Your task to perform on an android device: Show me popular videos on Youtube Image 0: 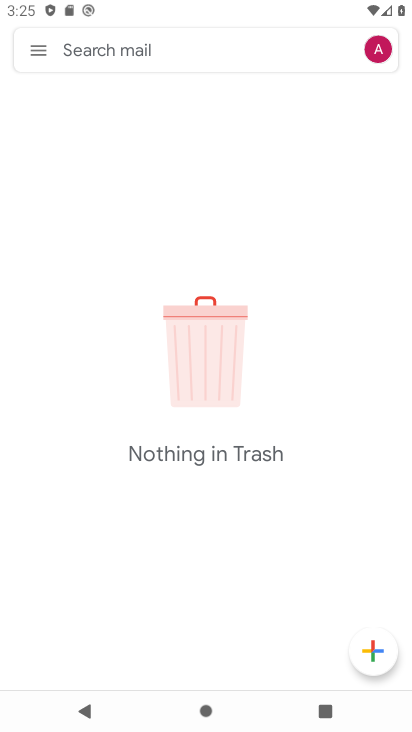
Step 0: press home button
Your task to perform on an android device: Show me popular videos on Youtube Image 1: 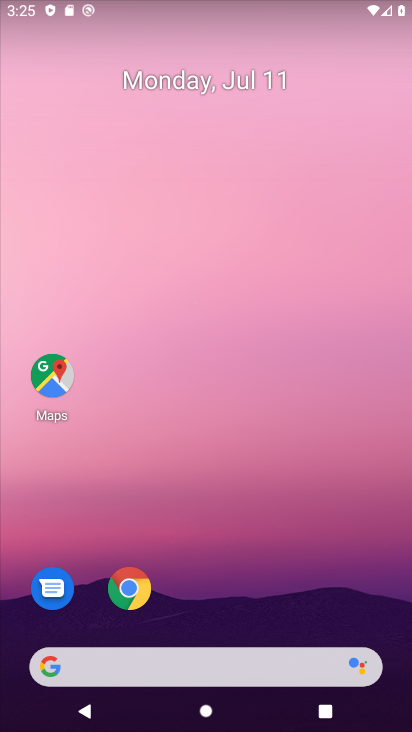
Step 1: click (407, 553)
Your task to perform on an android device: Show me popular videos on Youtube Image 2: 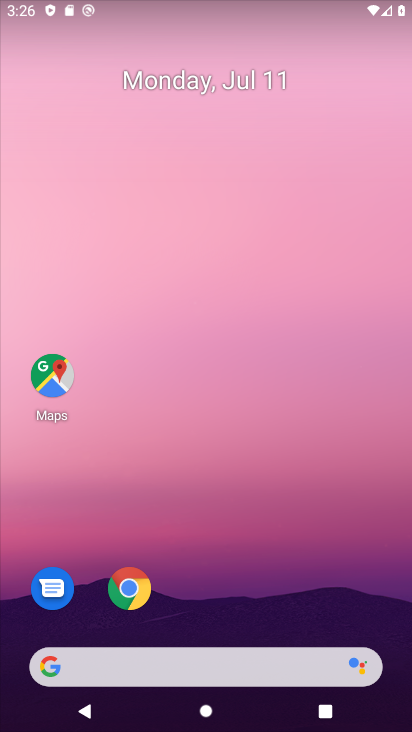
Step 2: drag from (345, 622) to (352, 230)
Your task to perform on an android device: Show me popular videos on Youtube Image 3: 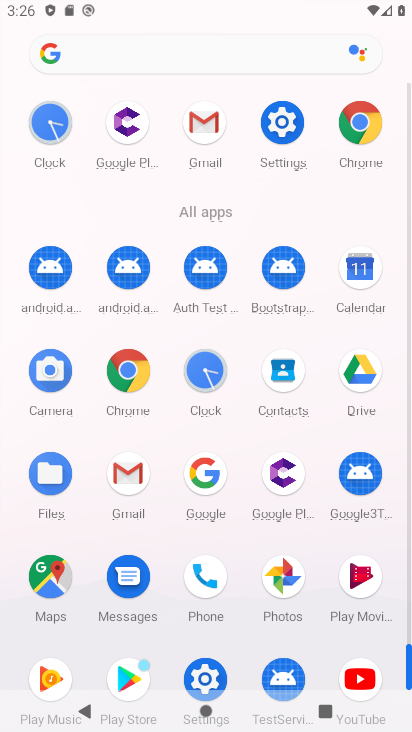
Step 3: click (362, 672)
Your task to perform on an android device: Show me popular videos on Youtube Image 4: 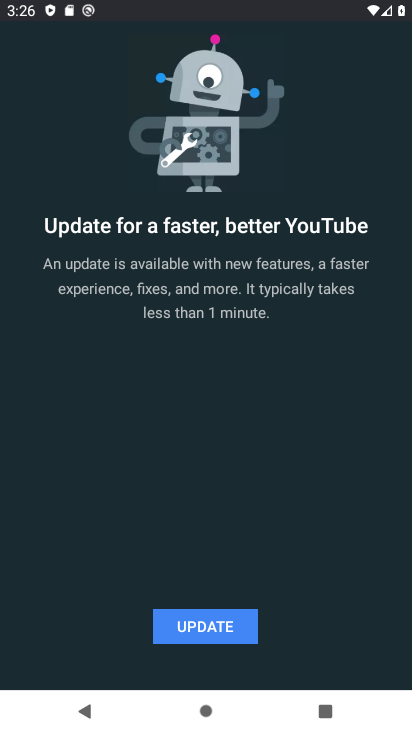
Step 4: click (221, 628)
Your task to perform on an android device: Show me popular videos on Youtube Image 5: 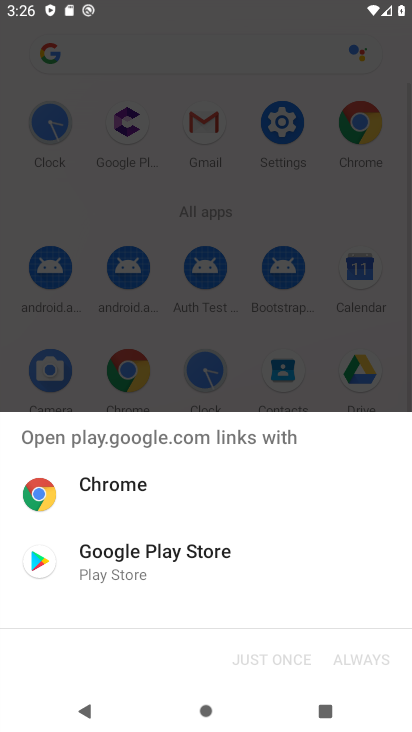
Step 5: click (174, 566)
Your task to perform on an android device: Show me popular videos on Youtube Image 6: 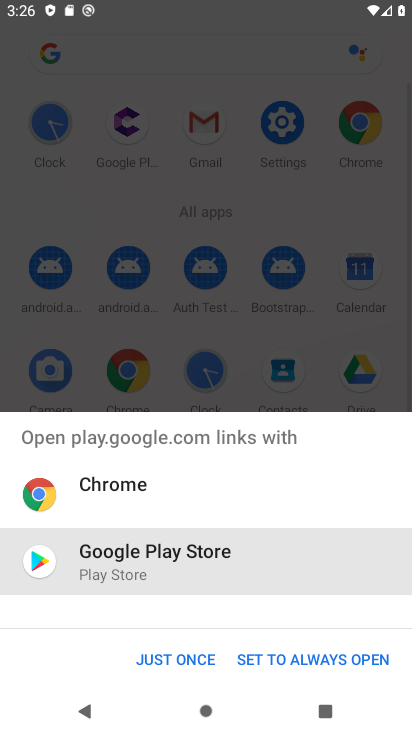
Step 6: click (175, 670)
Your task to perform on an android device: Show me popular videos on Youtube Image 7: 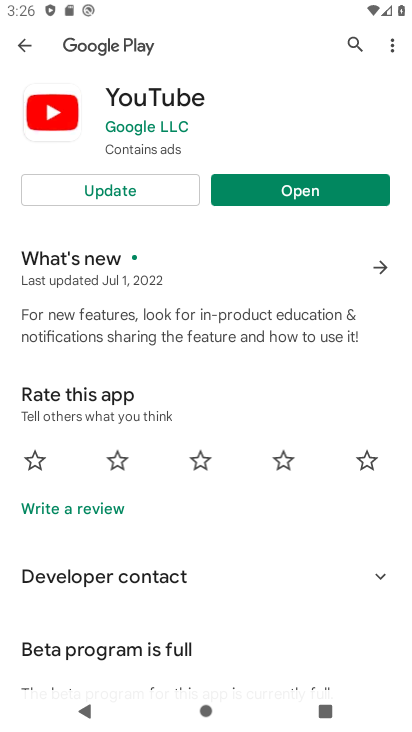
Step 7: click (138, 195)
Your task to perform on an android device: Show me popular videos on Youtube Image 8: 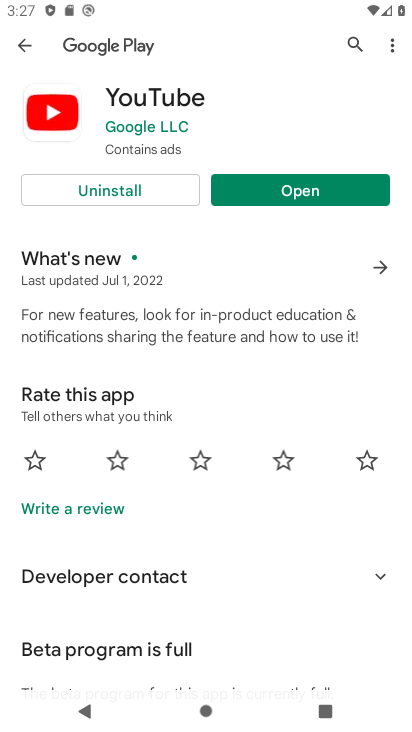
Step 8: click (355, 200)
Your task to perform on an android device: Show me popular videos on Youtube Image 9: 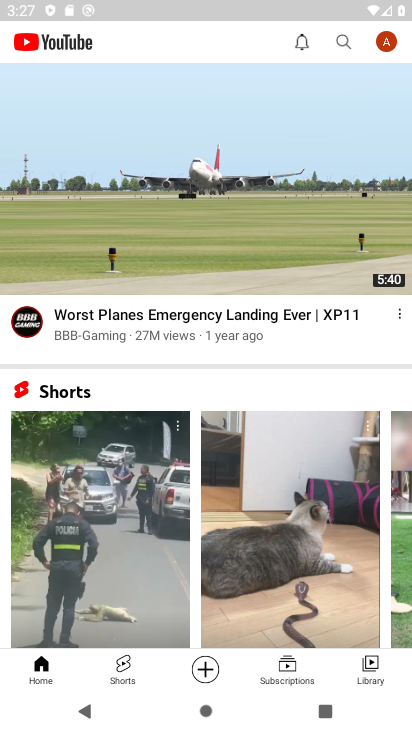
Step 9: task complete